Your task to perform on an android device: make emails show in primary in the gmail app Image 0: 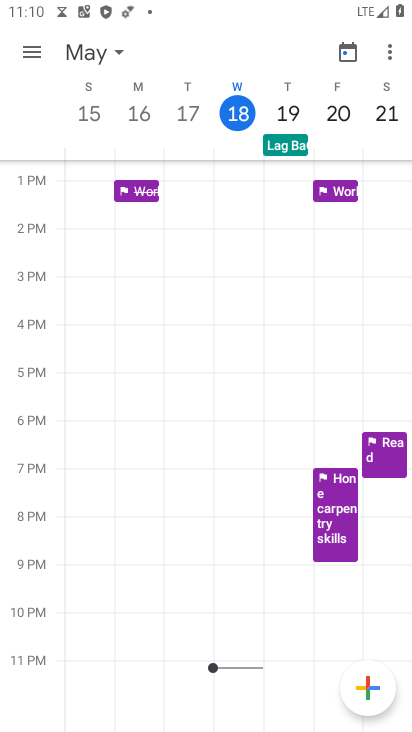
Step 0: press back button
Your task to perform on an android device: make emails show in primary in the gmail app Image 1: 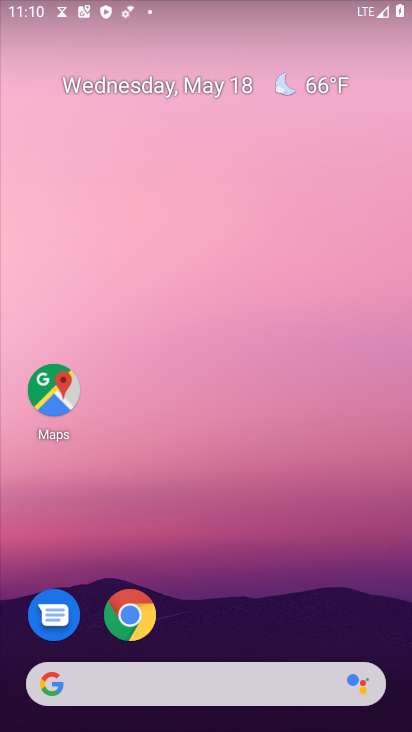
Step 1: drag from (225, 554) to (204, 1)
Your task to perform on an android device: make emails show in primary in the gmail app Image 2: 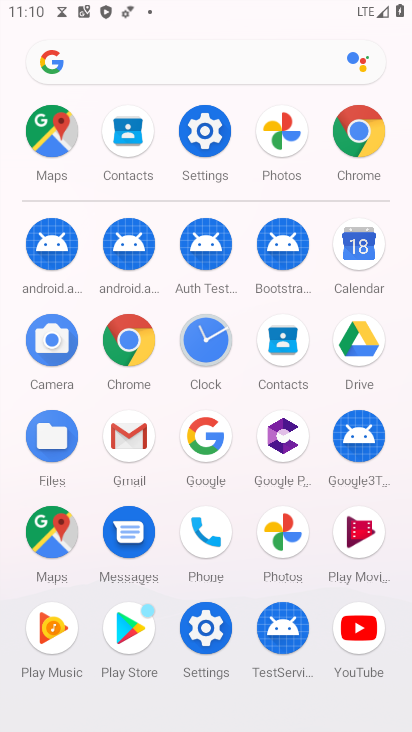
Step 2: drag from (1, 507) to (15, 221)
Your task to perform on an android device: make emails show in primary in the gmail app Image 3: 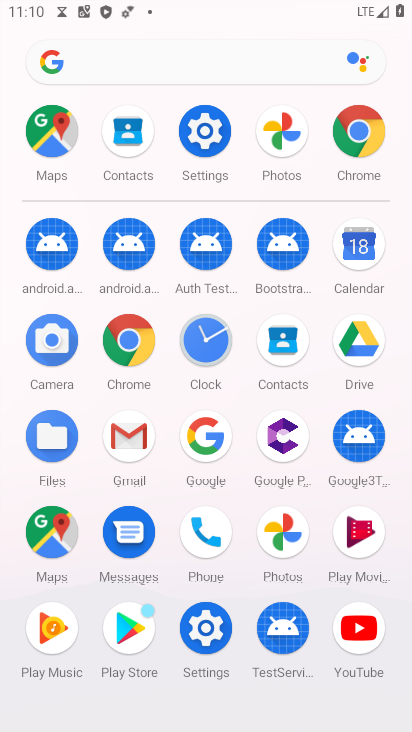
Step 3: click (125, 426)
Your task to perform on an android device: make emails show in primary in the gmail app Image 4: 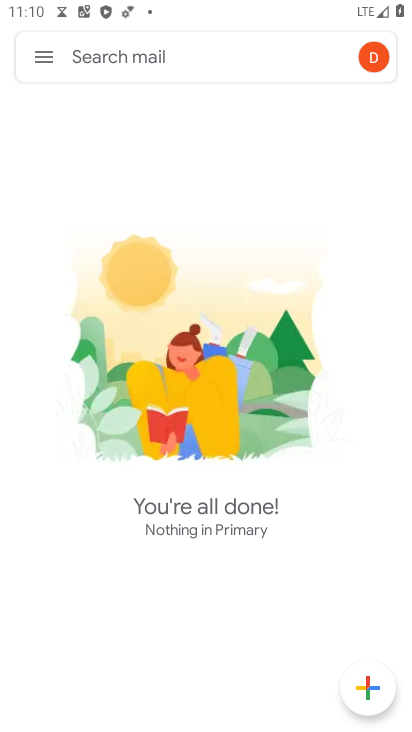
Step 4: click (43, 52)
Your task to perform on an android device: make emails show in primary in the gmail app Image 5: 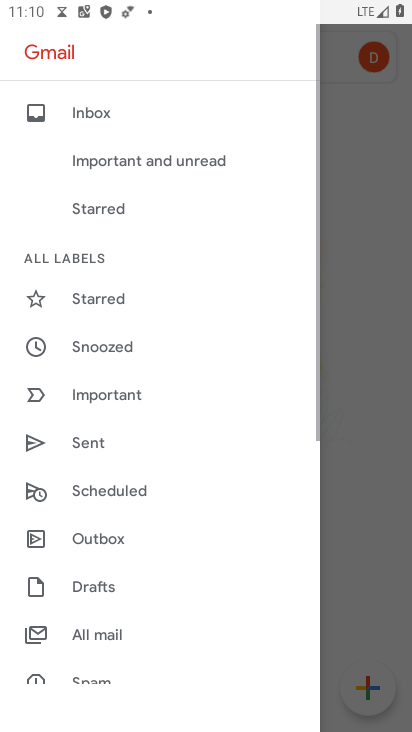
Step 5: drag from (185, 604) to (209, 106)
Your task to perform on an android device: make emails show in primary in the gmail app Image 6: 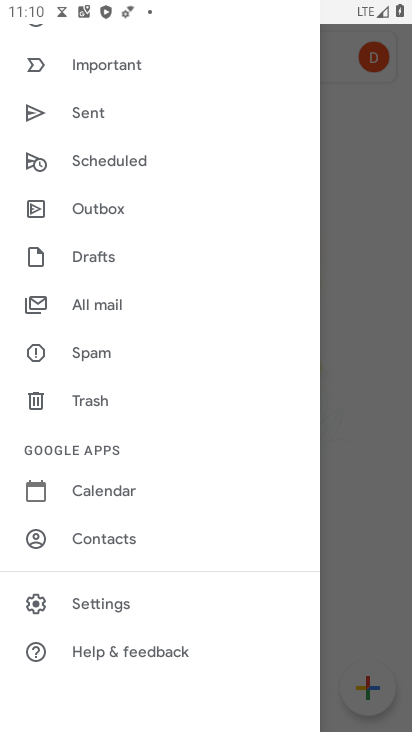
Step 6: click (127, 603)
Your task to perform on an android device: make emails show in primary in the gmail app Image 7: 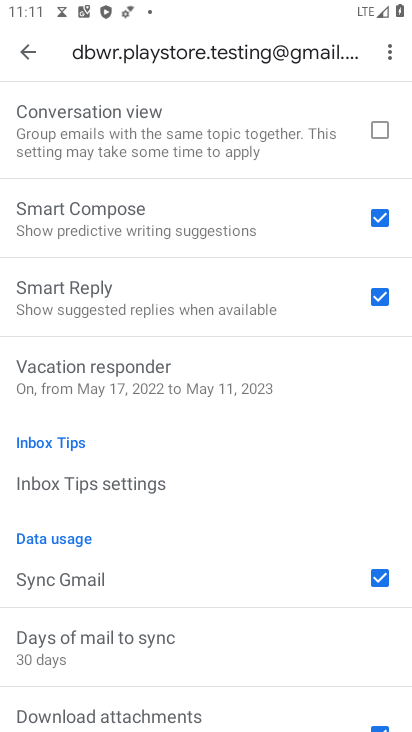
Step 7: drag from (179, 192) to (178, 586)
Your task to perform on an android device: make emails show in primary in the gmail app Image 8: 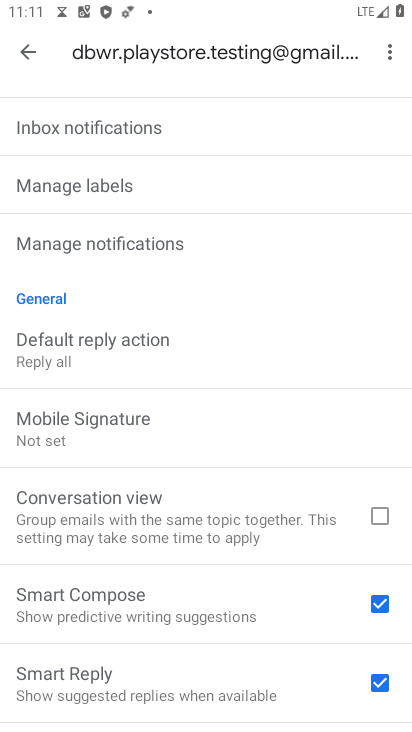
Step 8: drag from (187, 183) to (205, 627)
Your task to perform on an android device: make emails show in primary in the gmail app Image 9: 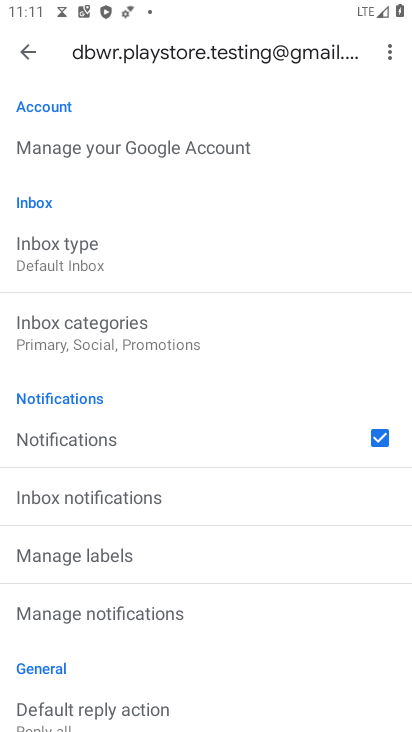
Step 9: click (130, 257)
Your task to perform on an android device: make emails show in primary in the gmail app Image 10: 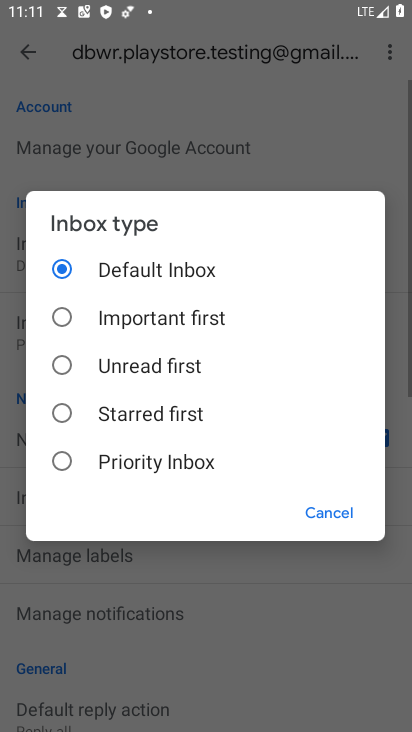
Step 10: click (130, 257)
Your task to perform on an android device: make emails show in primary in the gmail app Image 11: 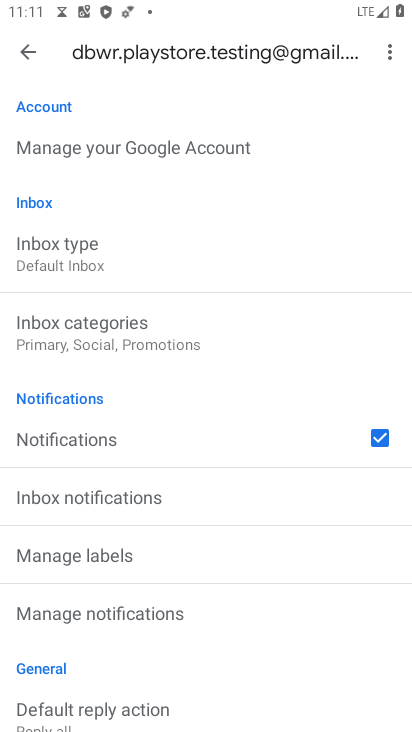
Step 11: click (121, 326)
Your task to perform on an android device: make emails show in primary in the gmail app Image 12: 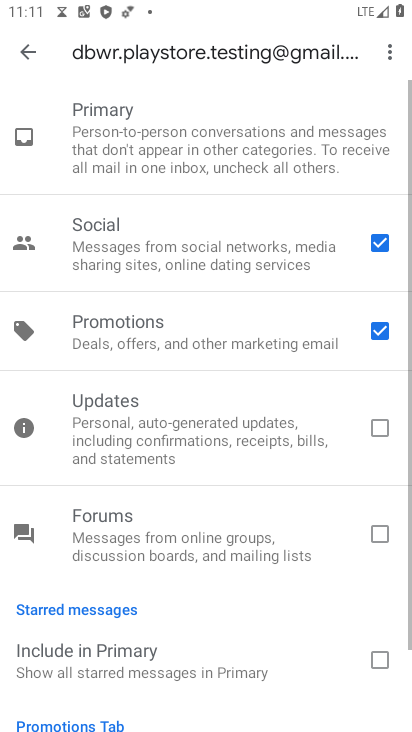
Step 12: click (381, 327)
Your task to perform on an android device: make emails show in primary in the gmail app Image 13: 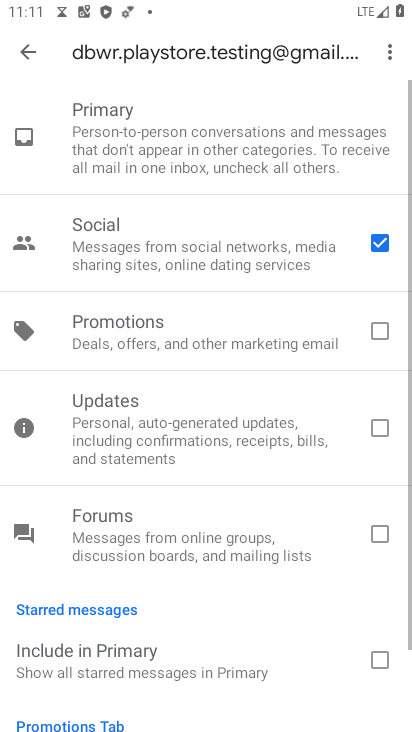
Step 13: click (374, 246)
Your task to perform on an android device: make emails show in primary in the gmail app Image 14: 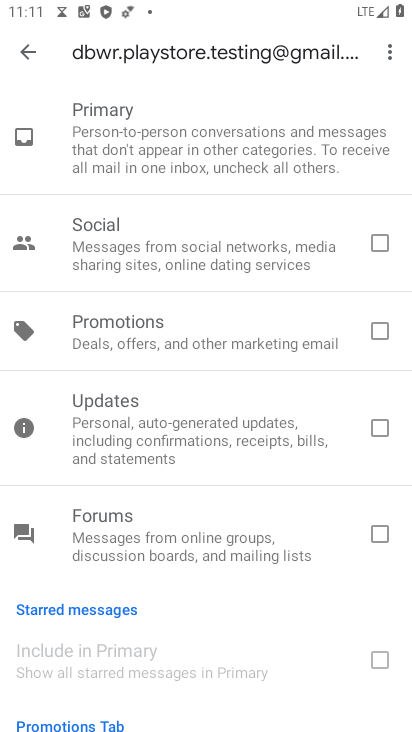
Step 14: click (31, 48)
Your task to perform on an android device: make emails show in primary in the gmail app Image 15: 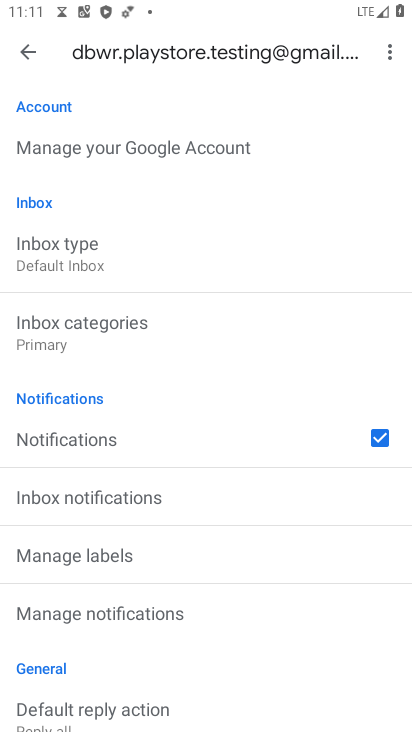
Step 15: task complete